Your task to perform on an android device: Open notification settings Image 0: 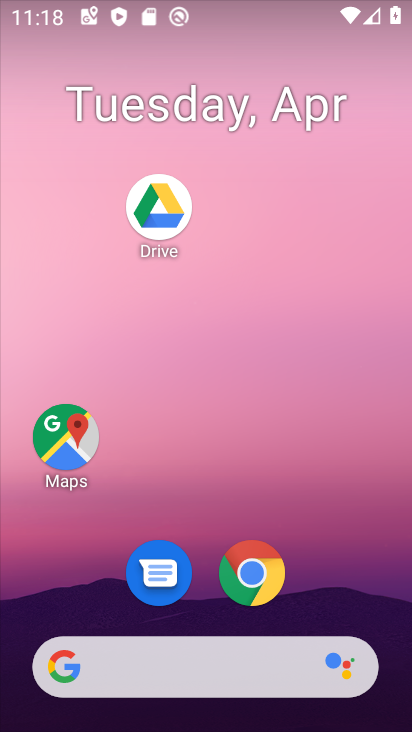
Step 0: drag from (334, 605) to (323, 97)
Your task to perform on an android device: Open notification settings Image 1: 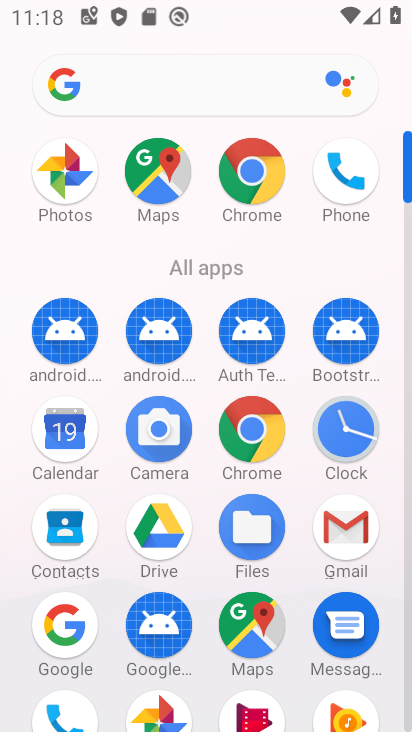
Step 1: drag from (199, 582) to (202, 248)
Your task to perform on an android device: Open notification settings Image 2: 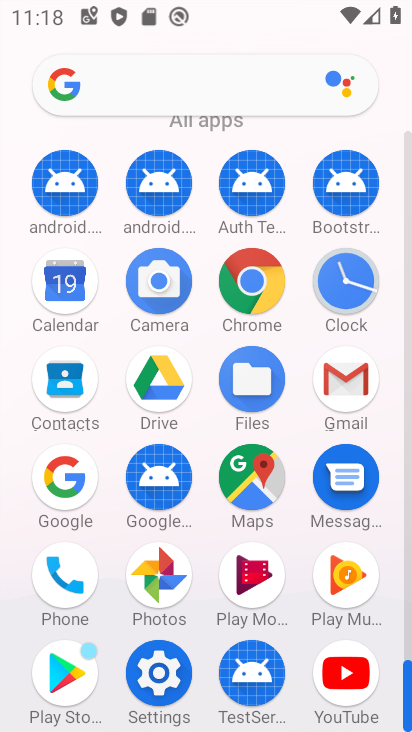
Step 2: click (155, 682)
Your task to perform on an android device: Open notification settings Image 3: 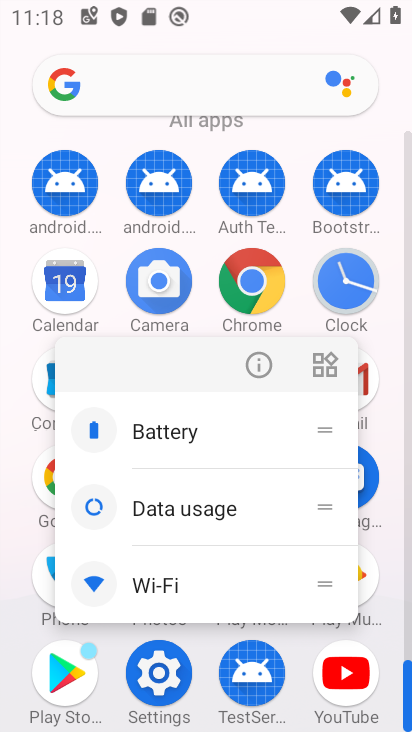
Step 3: click (155, 682)
Your task to perform on an android device: Open notification settings Image 4: 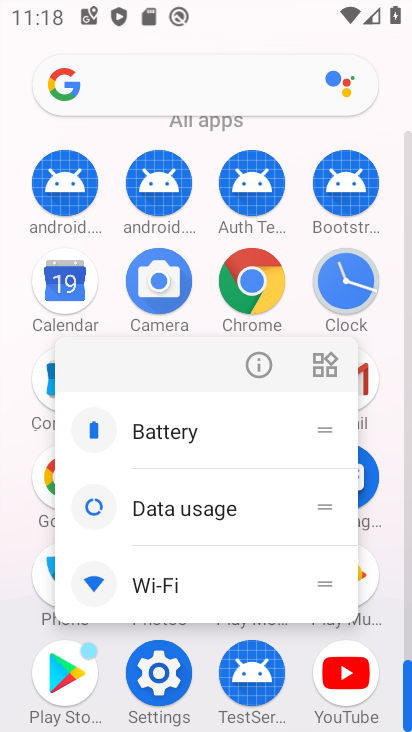
Step 4: click (155, 682)
Your task to perform on an android device: Open notification settings Image 5: 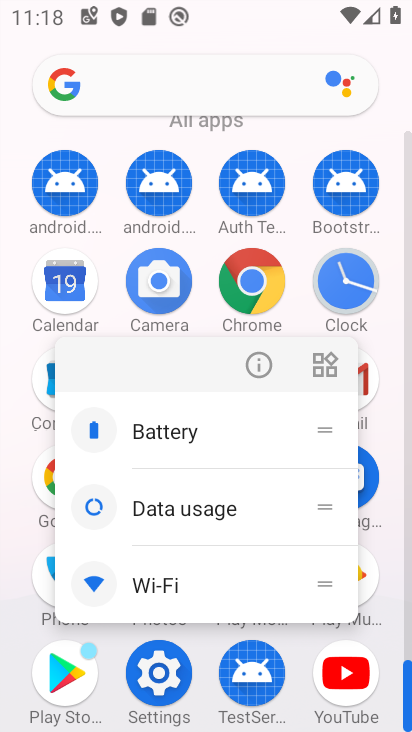
Step 5: click (155, 682)
Your task to perform on an android device: Open notification settings Image 6: 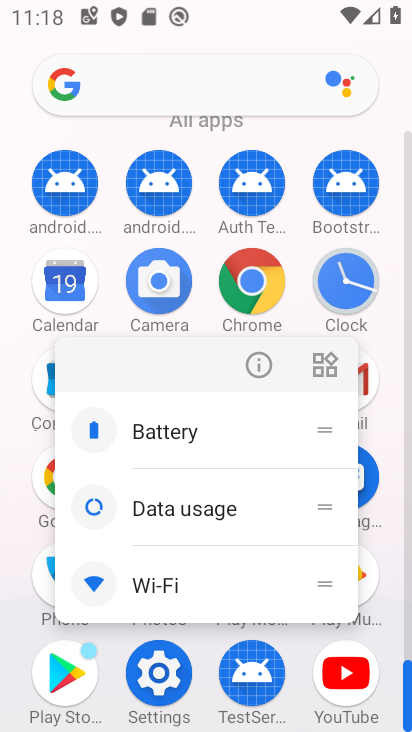
Step 6: click (155, 682)
Your task to perform on an android device: Open notification settings Image 7: 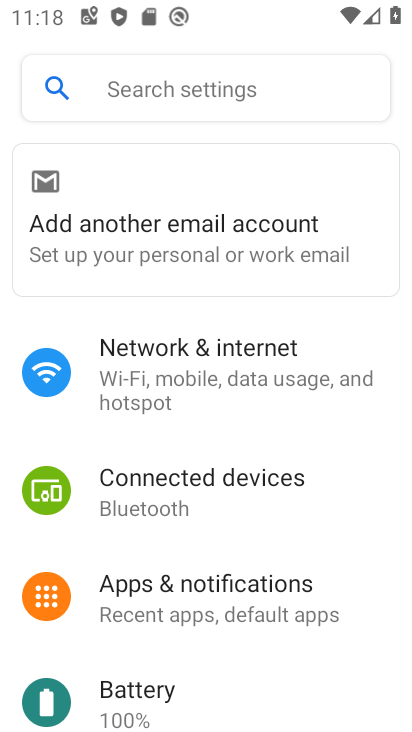
Step 7: click (254, 592)
Your task to perform on an android device: Open notification settings Image 8: 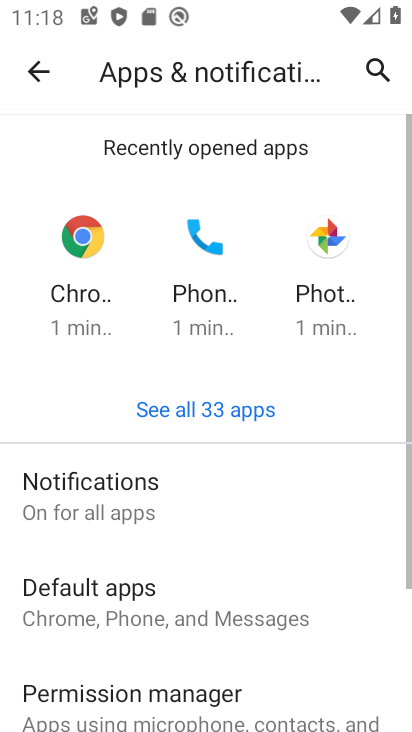
Step 8: click (106, 495)
Your task to perform on an android device: Open notification settings Image 9: 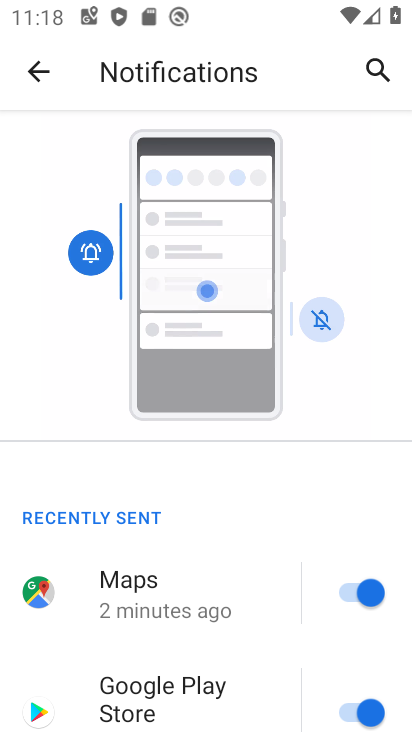
Step 9: task complete